Your task to perform on an android device: Go to privacy settings Image 0: 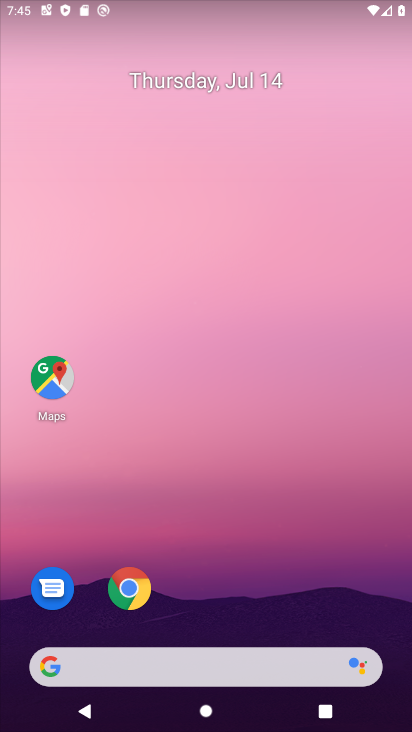
Step 0: drag from (373, 627) to (291, 48)
Your task to perform on an android device: Go to privacy settings Image 1: 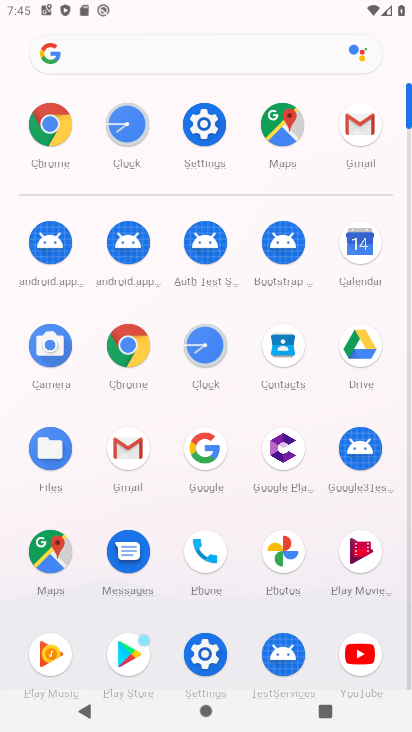
Step 1: click (206, 680)
Your task to perform on an android device: Go to privacy settings Image 2: 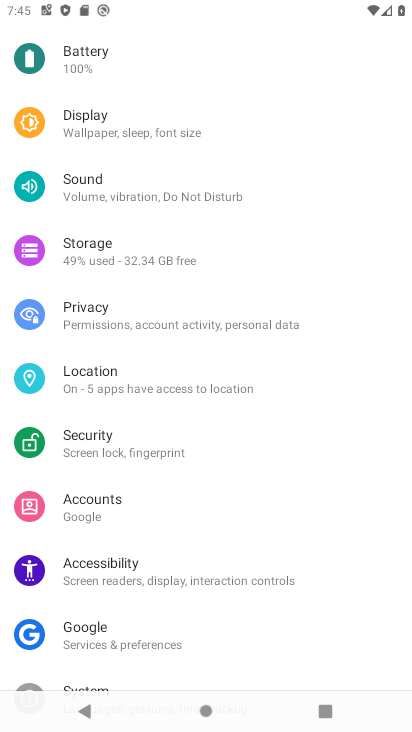
Step 2: click (102, 322)
Your task to perform on an android device: Go to privacy settings Image 3: 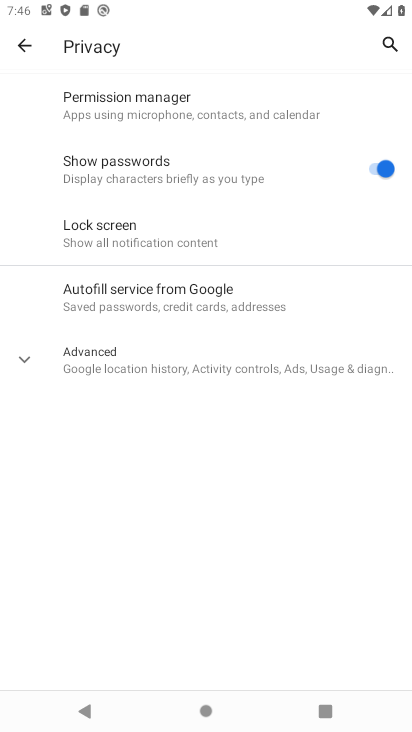
Step 3: task complete